Your task to perform on an android device: Clear the shopping cart on ebay.com. Add "bose quietcomfort 35" to the cart on ebay.com Image 0: 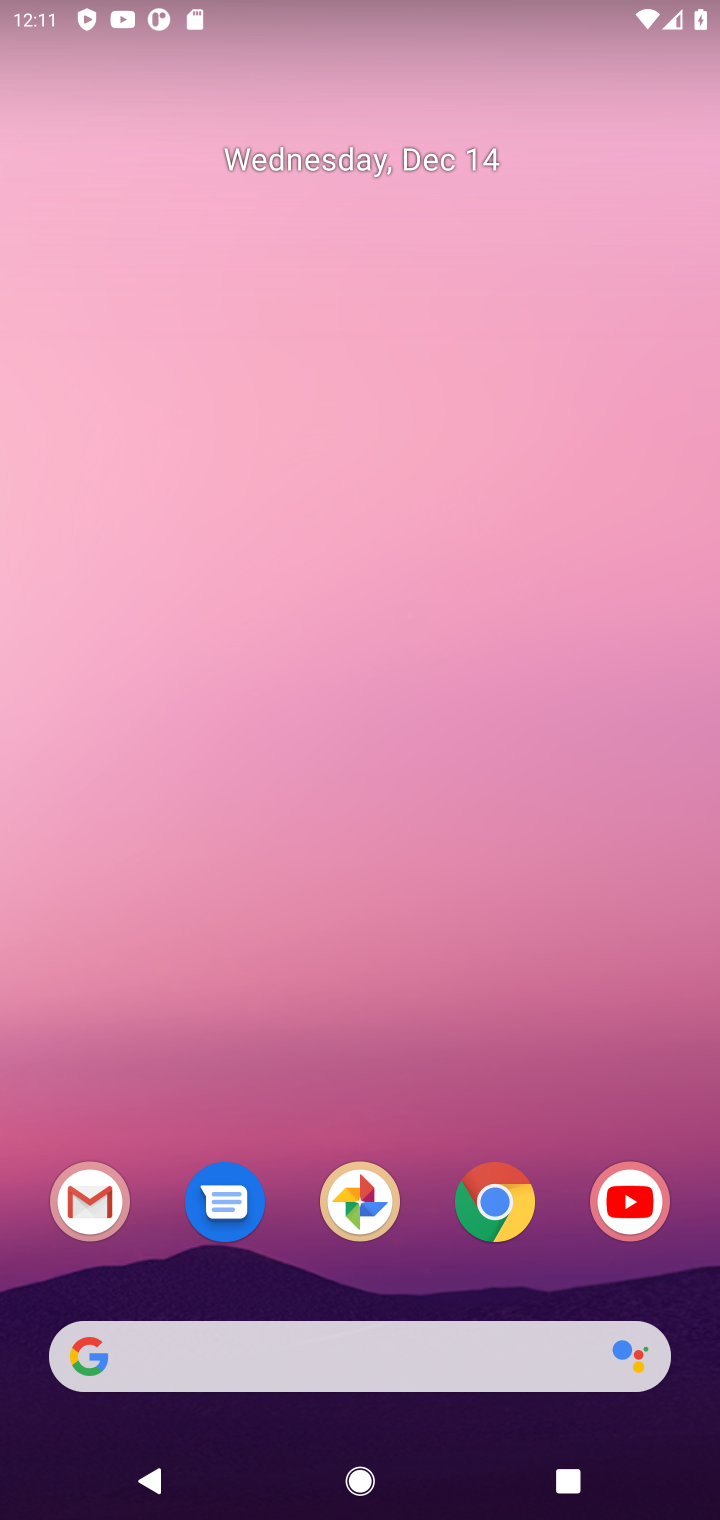
Step 0: click (494, 1212)
Your task to perform on an android device: Clear the shopping cart on ebay.com. Add "bose quietcomfort 35" to the cart on ebay.com Image 1: 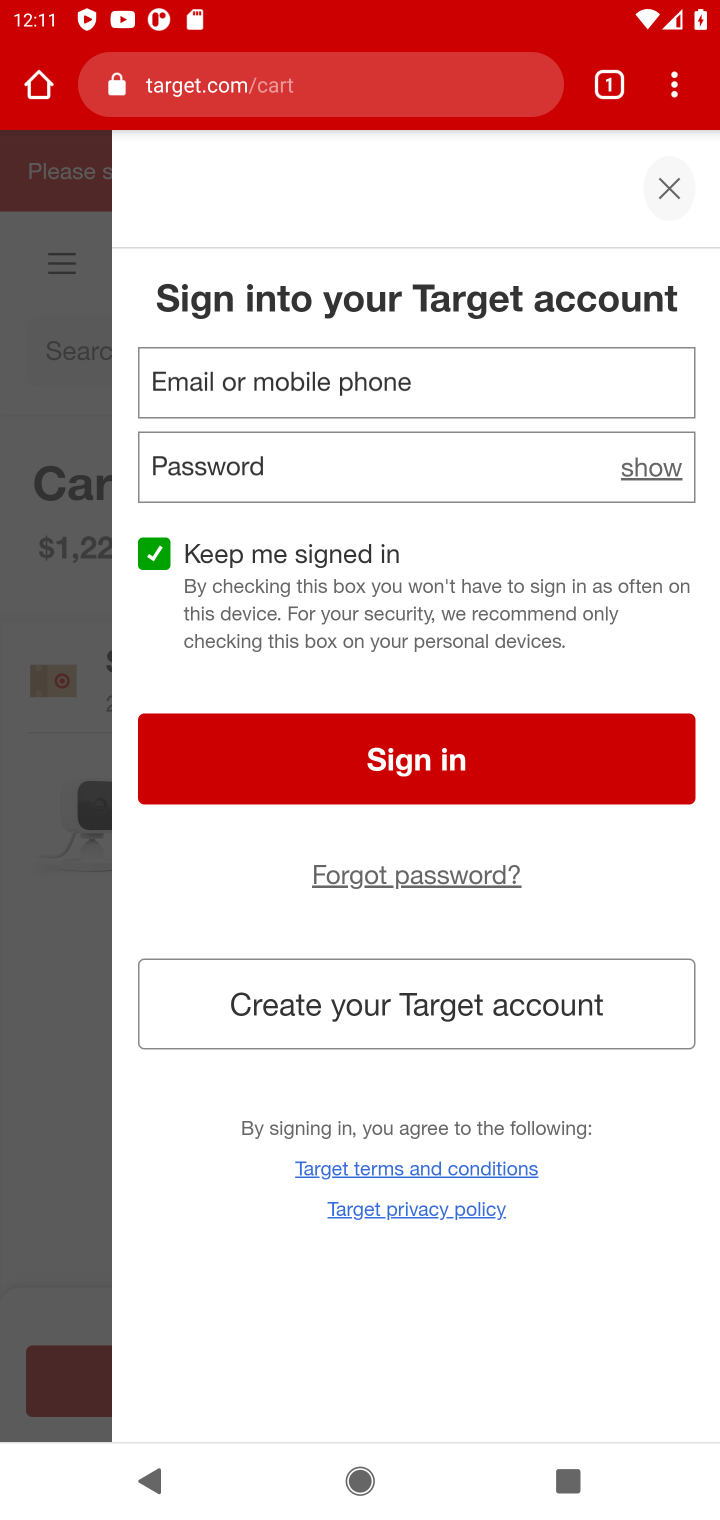
Step 1: click (288, 85)
Your task to perform on an android device: Clear the shopping cart on ebay.com. Add "bose quietcomfort 35" to the cart on ebay.com Image 2: 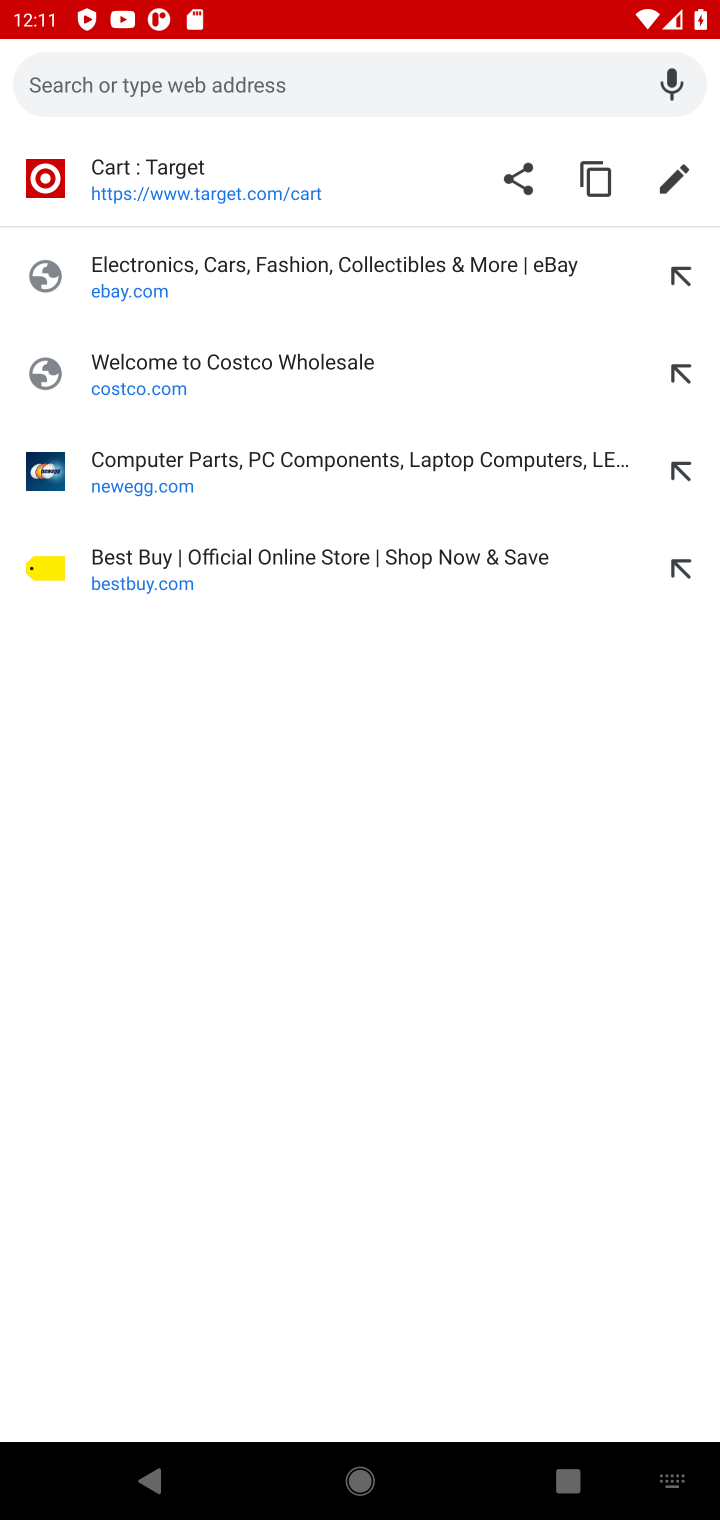
Step 2: click (238, 279)
Your task to perform on an android device: Clear the shopping cart on ebay.com. Add "bose quietcomfort 35" to the cart on ebay.com Image 3: 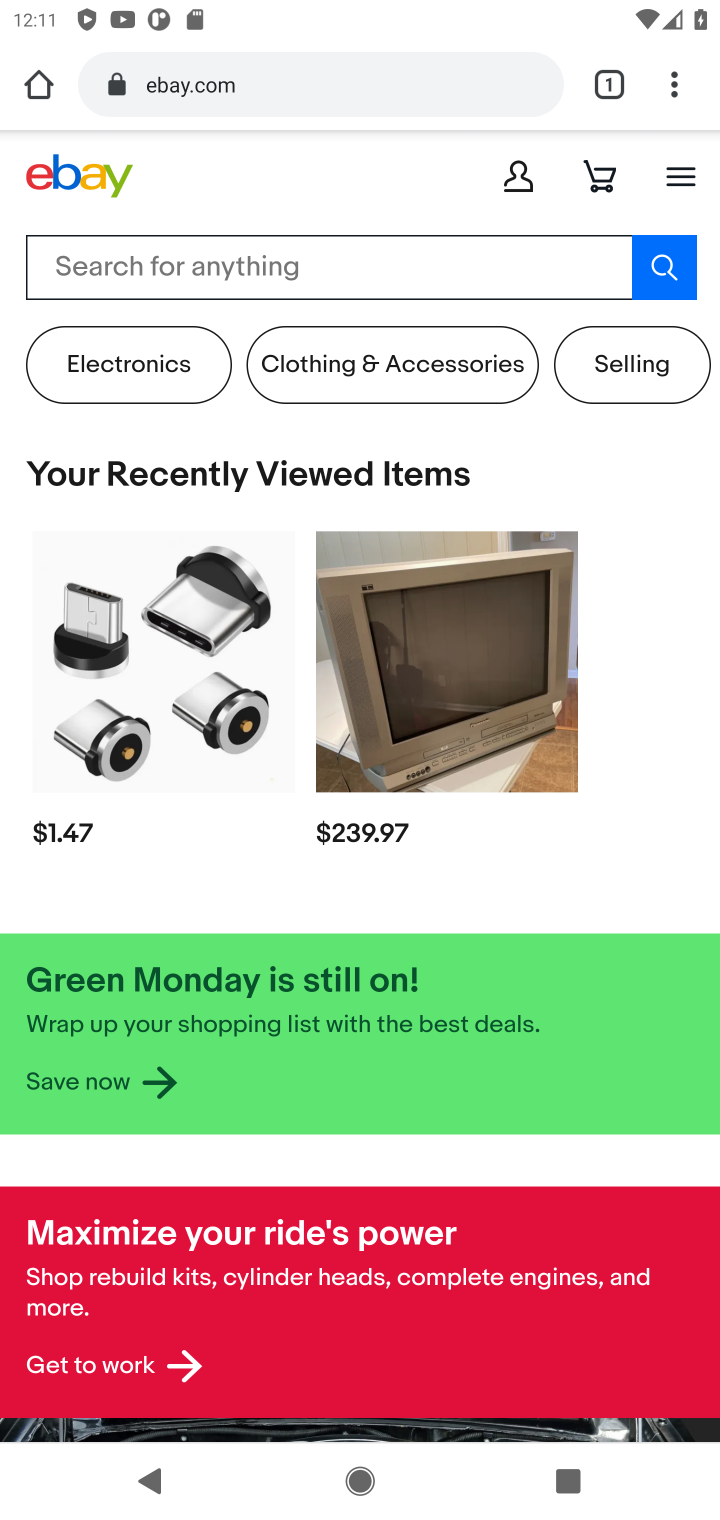
Step 3: click (238, 275)
Your task to perform on an android device: Clear the shopping cart on ebay.com. Add "bose quietcomfort 35" to the cart on ebay.com Image 4: 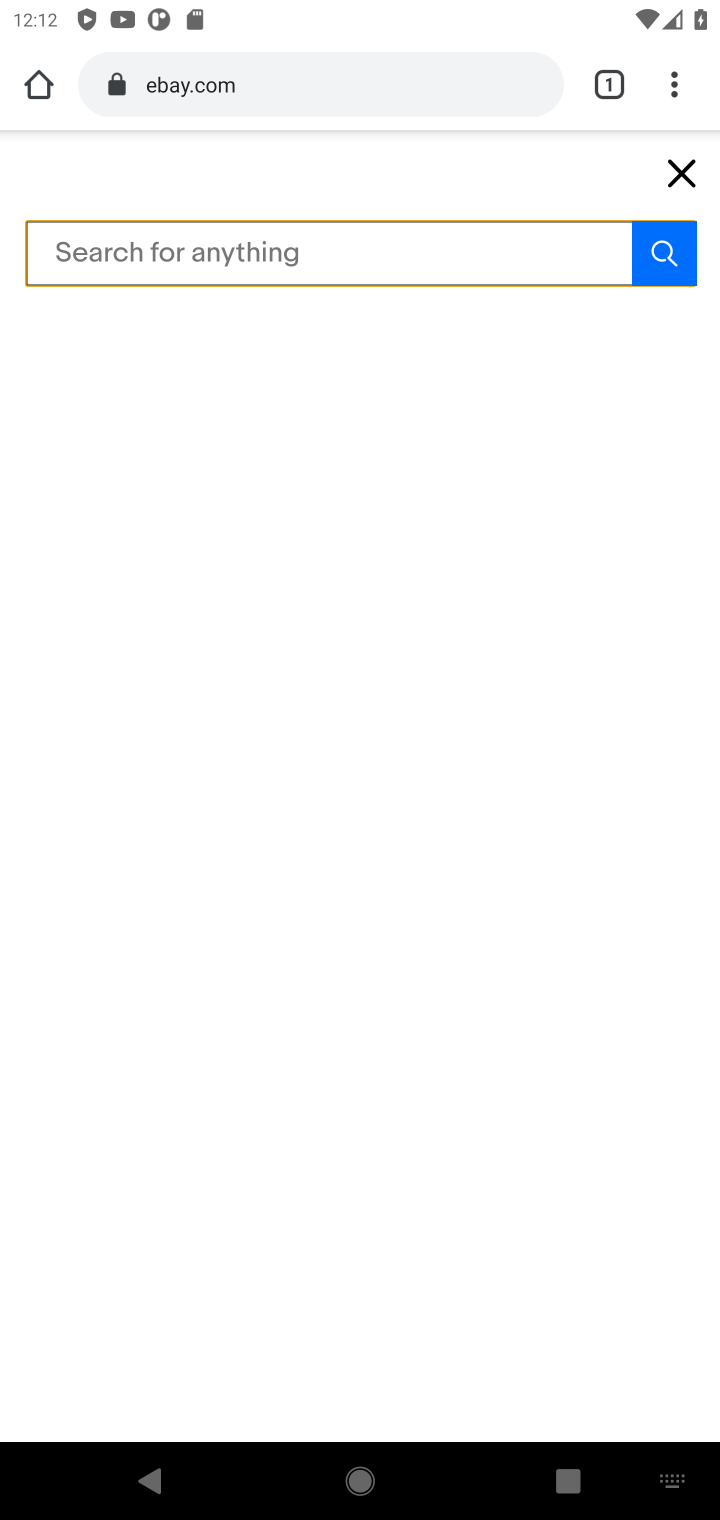
Step 4: type "bose quietcomfort 35"
Your task to perform on an android device: Clear the shopping cart on ebay.com. Add "bose quietcomfort 35" to the cart on ebay.com Image 5: 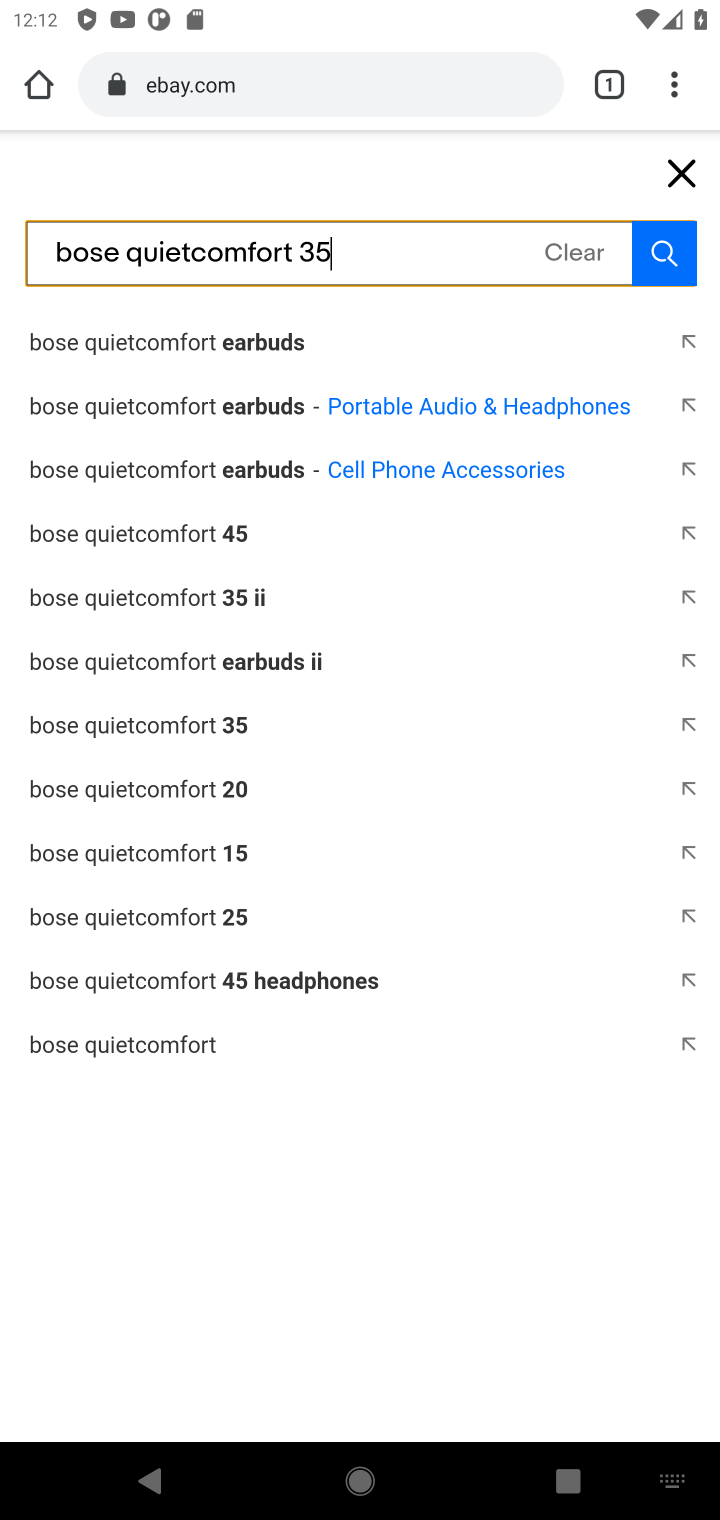
Step 5: click (126, 355)
Your task to perform on an android device: Clear the shopping cart on ebay.com. Add "bose quietcomfort 35" to the cart on ebay.com Image 6: 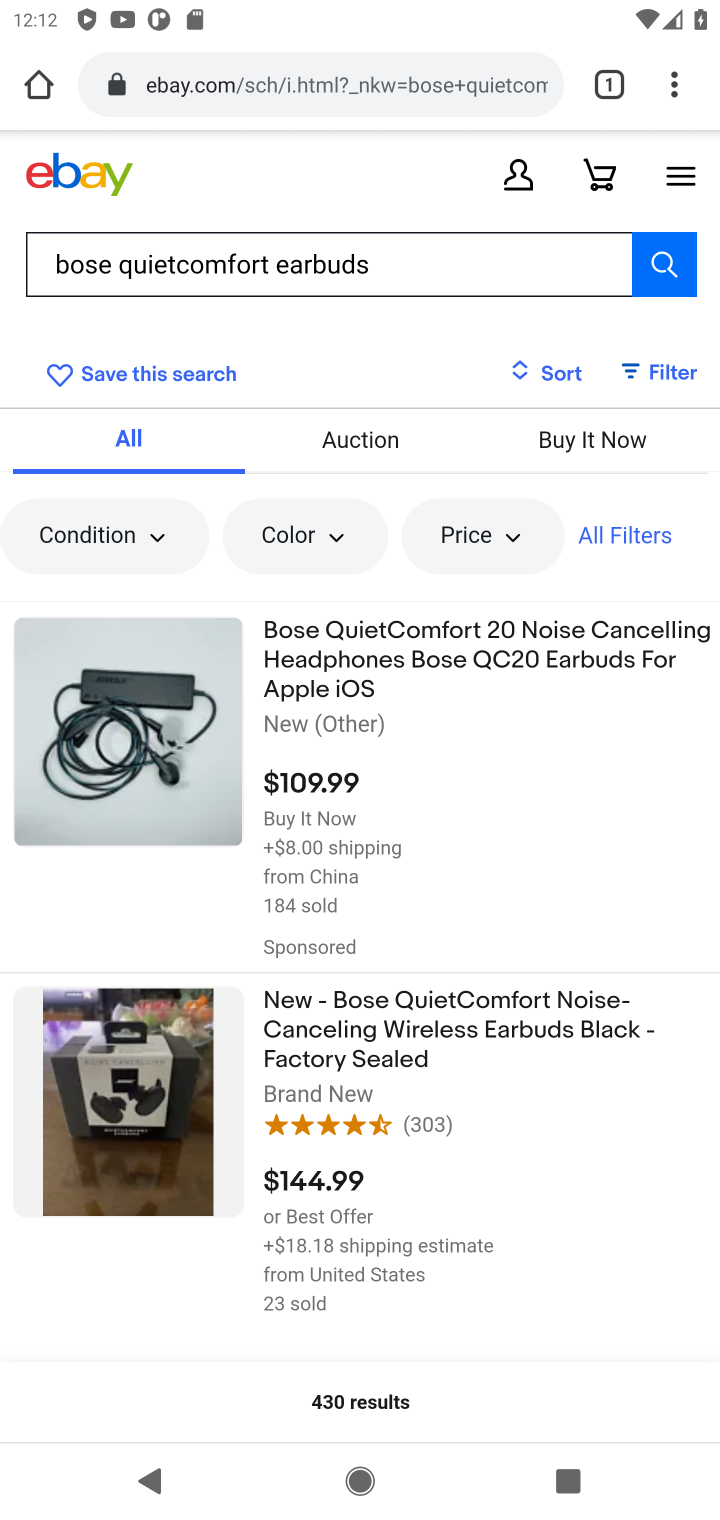
Step 6: click (502, 659)
Your task to perform on an android device: Clear the shopping cart on ebay.com. Add "bose quietcomfort 35" to the cart on ebay.com Image 7: 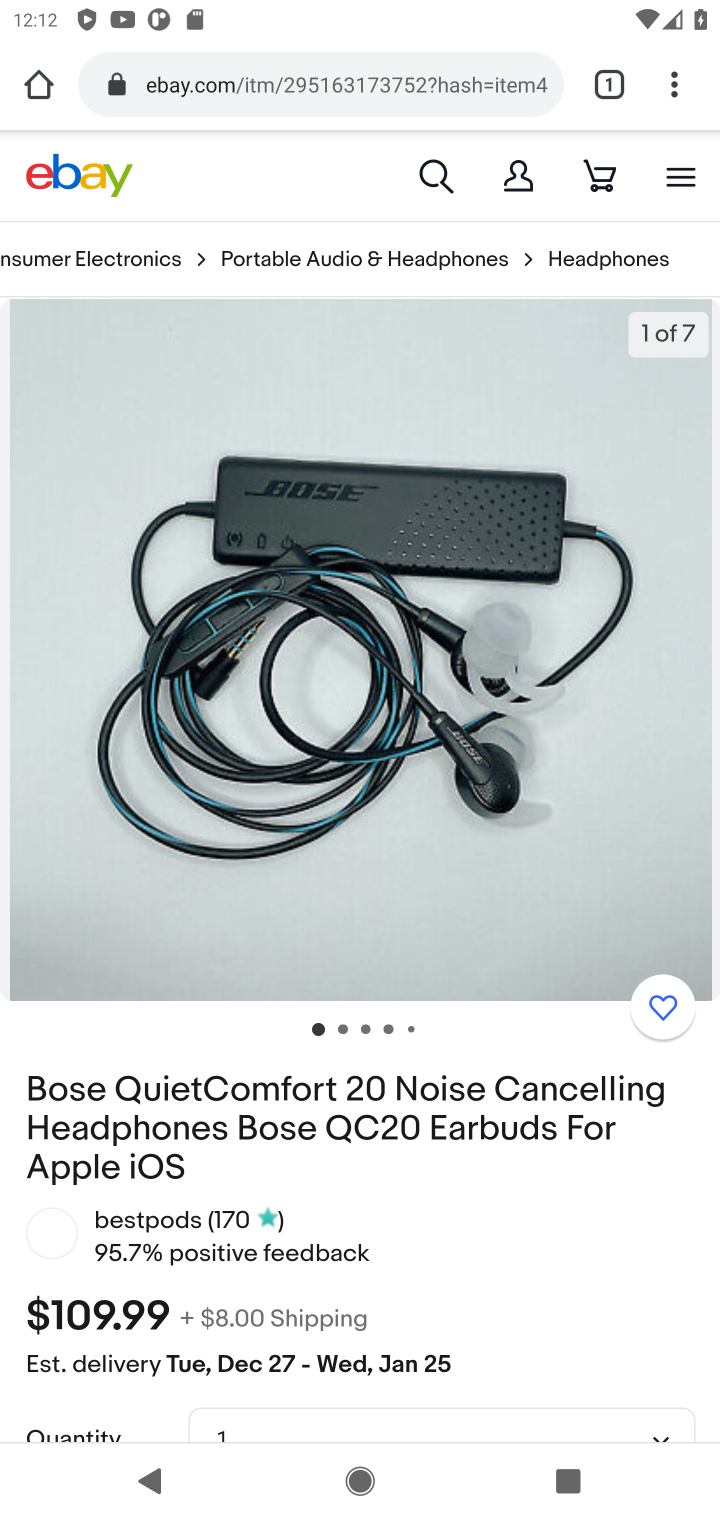
Step 7: drag from (461, 1208) to (418, 376)
Your task to perform on an android device: Clear the shopping cart on ebay.com. Add "bose quietcomfort 35" to the cart on ebay.com Image 8: 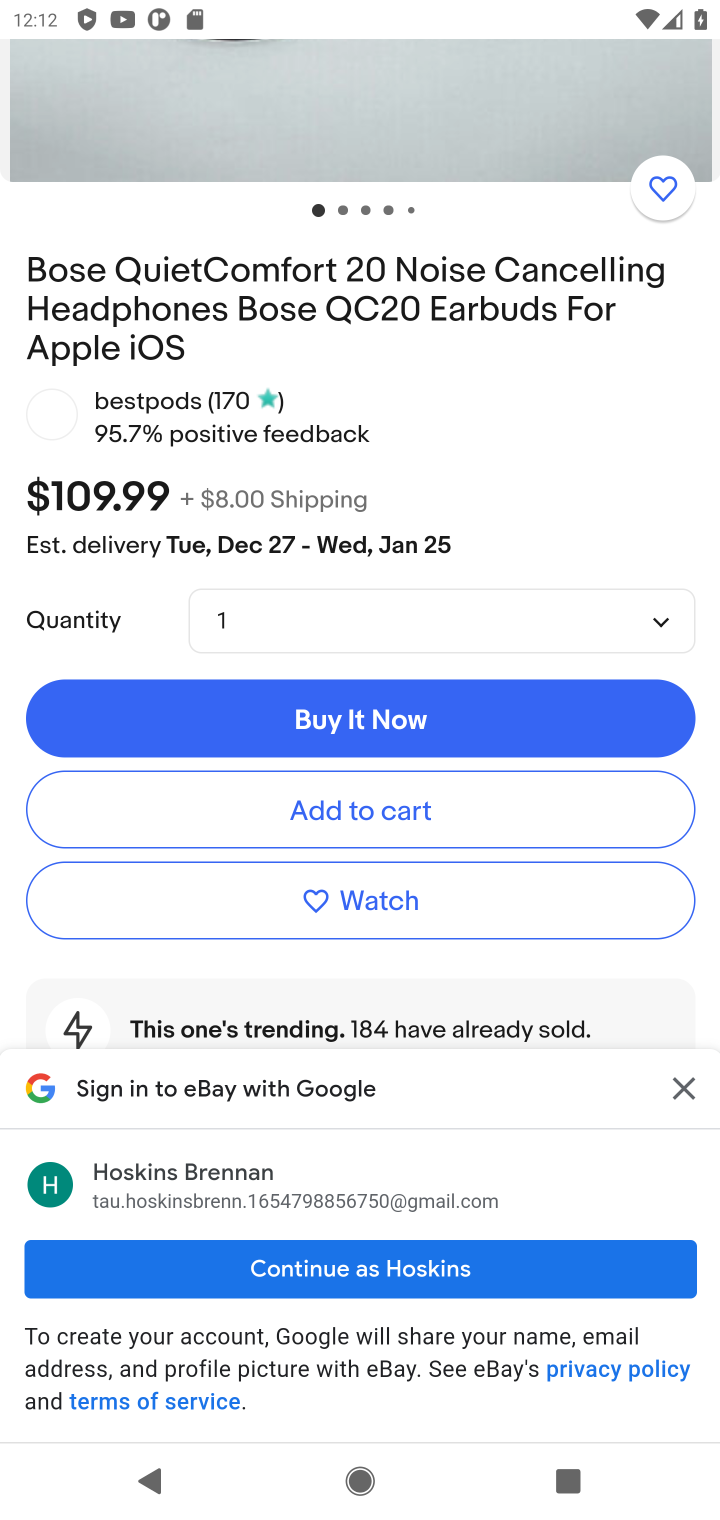
Step 8: click (408, 811)
Your task to perform on an android device: Clear the shopping cart on ebay.com. Add "bose quietcomfort 35" to the cart on ebay.com Image 9: 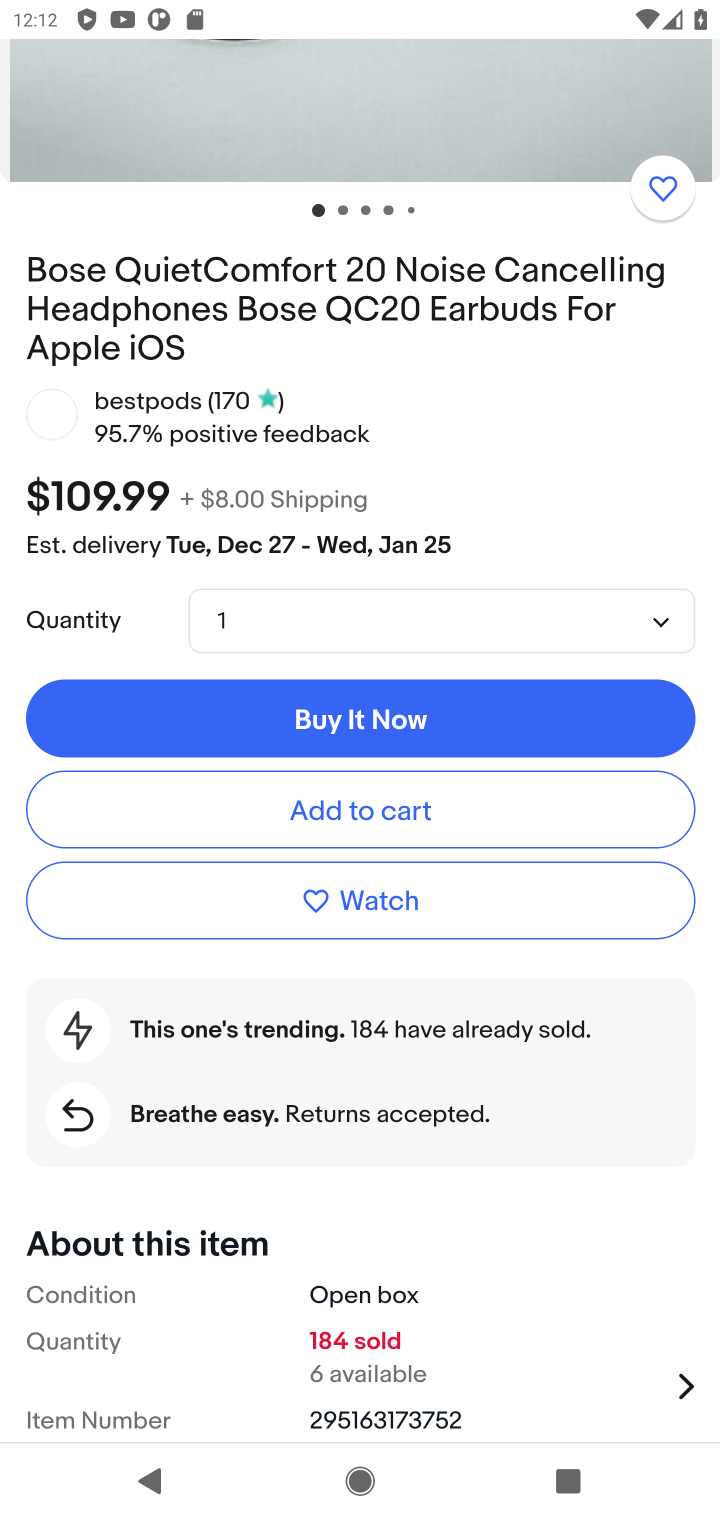
Step 9: click (352, 794)
Your task to perform on an android device: Clear the shopping cart on ebay.com. Add "bose quietcomfort 35" to the cart on ebay.com Image 10: 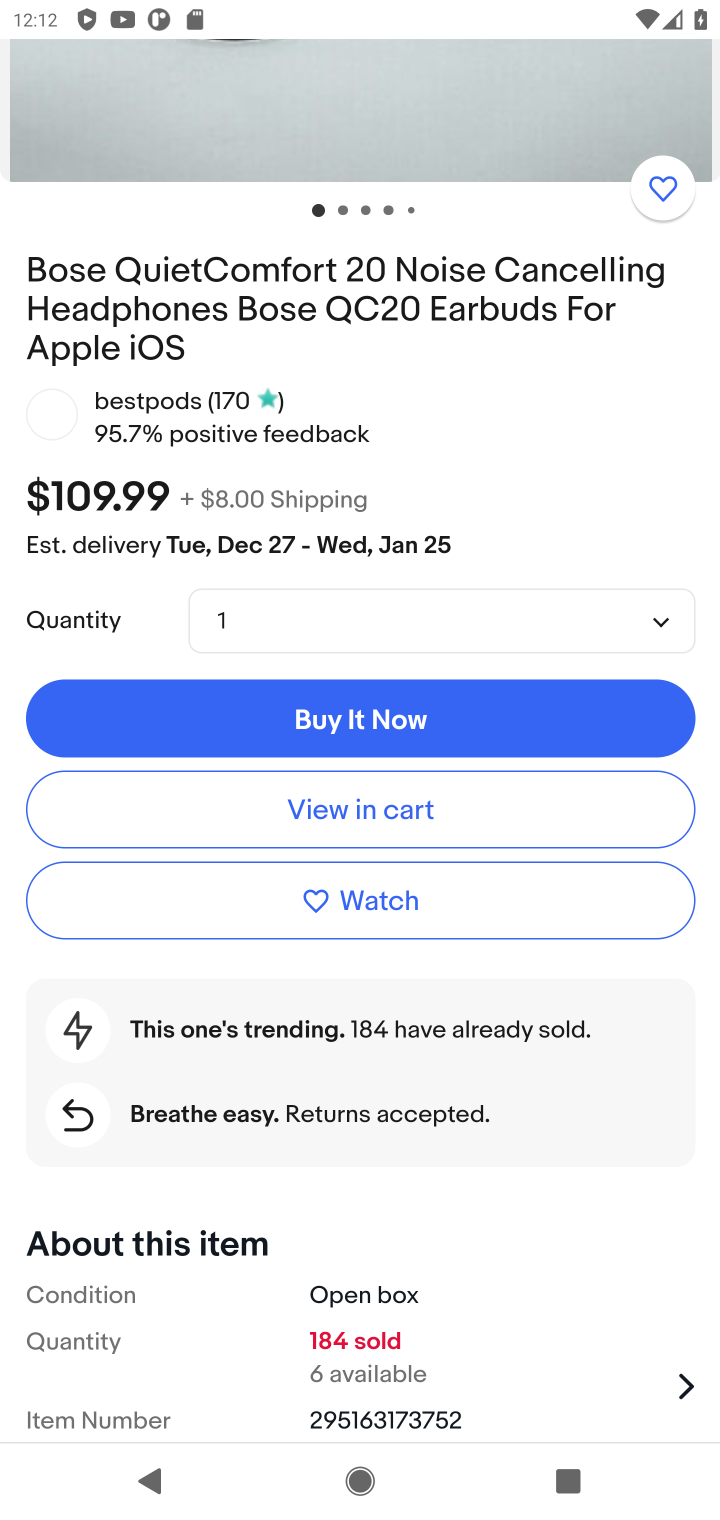
Step 10: click (378, 810)
Your task to perform on an android device: Clear the shopping cart on ebay.com. Add "bose quietcomfort 35" to the cart on ebay.com Image 11: 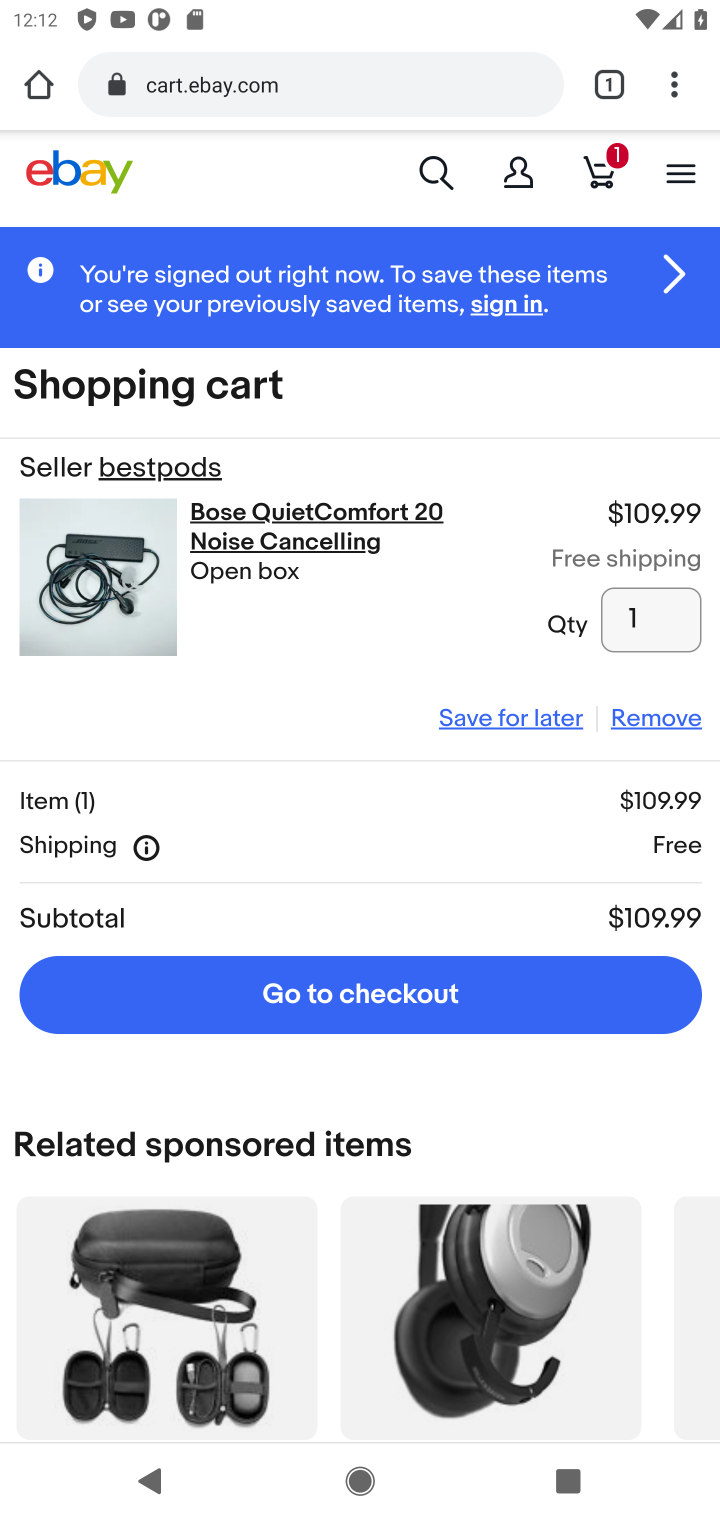
Step 11: click (360, 990)
Your task to perform on an android device: Clear the shopping cart on ebay.com. Add "bose quietcomfort 35" to the cart on ebay.com Image 12: 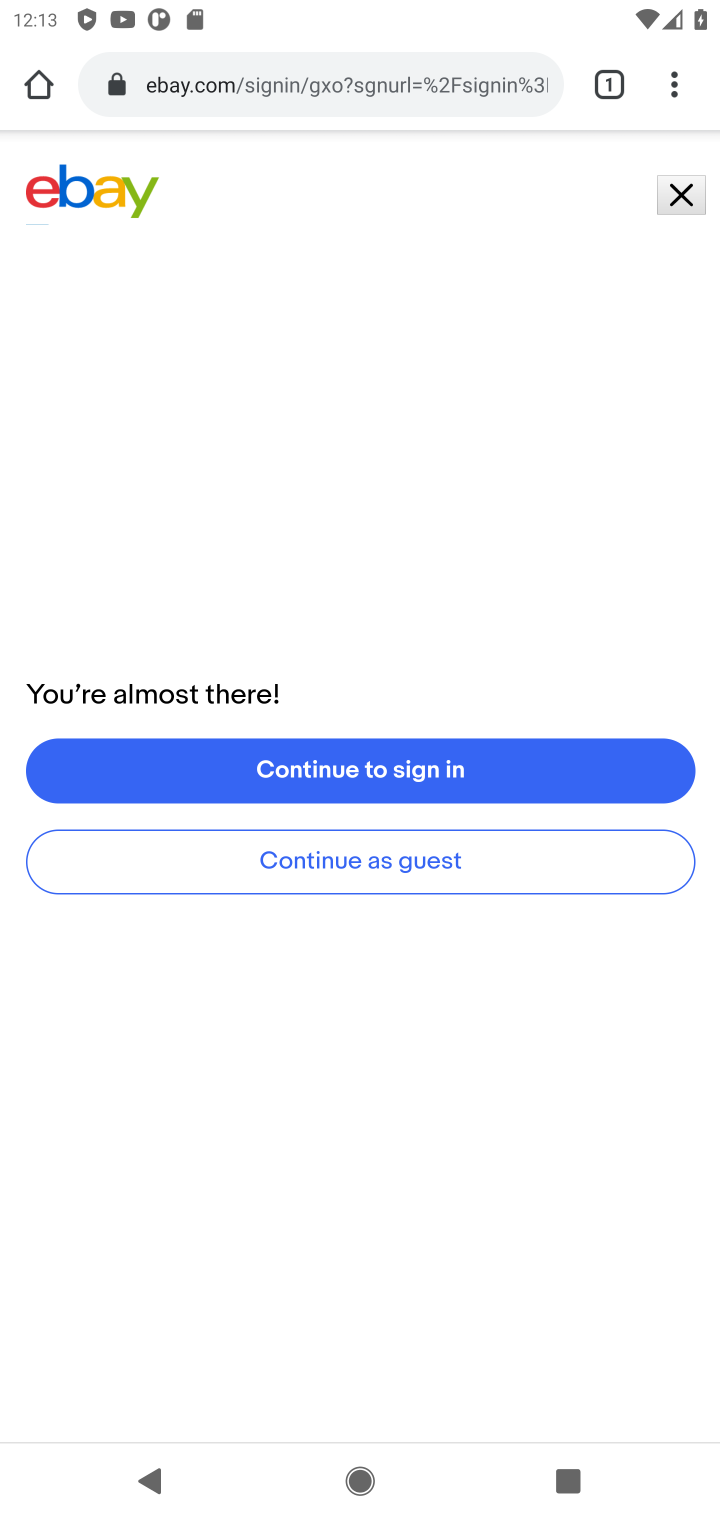
Step 12: task complete